Your task to perform on an android device: Open location settings Image 0: 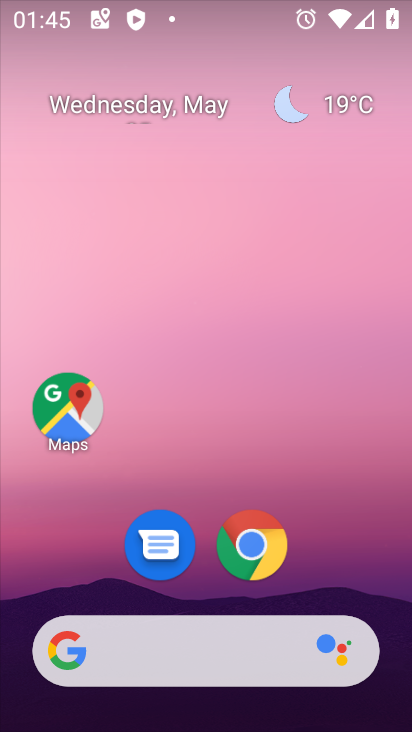
Step 0: drag from (325, 460) to (263, 114)
Your task to perform on an android device: Open location settings Image 1: 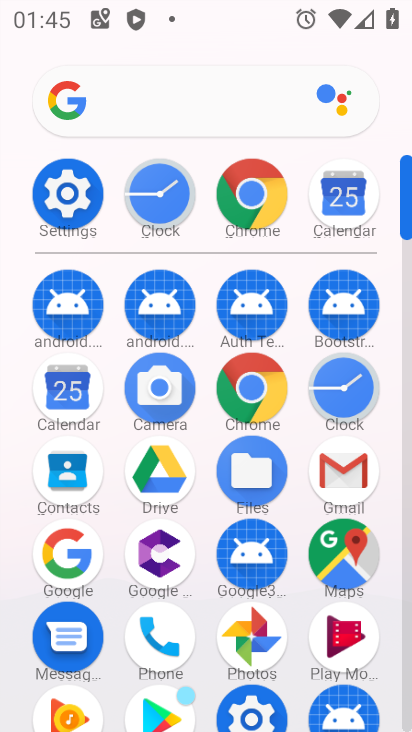
Step 1: click (75, 181)
Your task to perform on an android device: Open location settings Image 2: 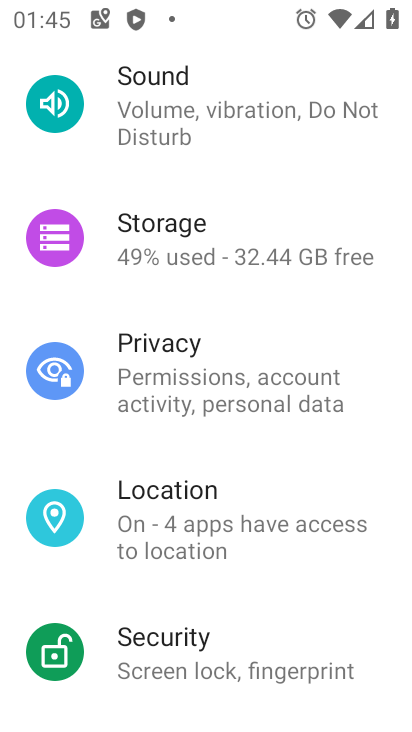
Step 2: click (208, 496)
Your task to perform on an android device: Open location settings Image 3: 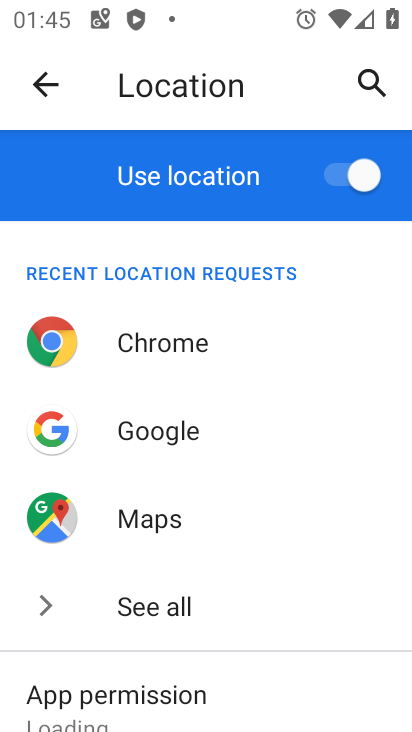
Step 3: task complete